Your task to perform on an android device: toggle wifi Image 0: 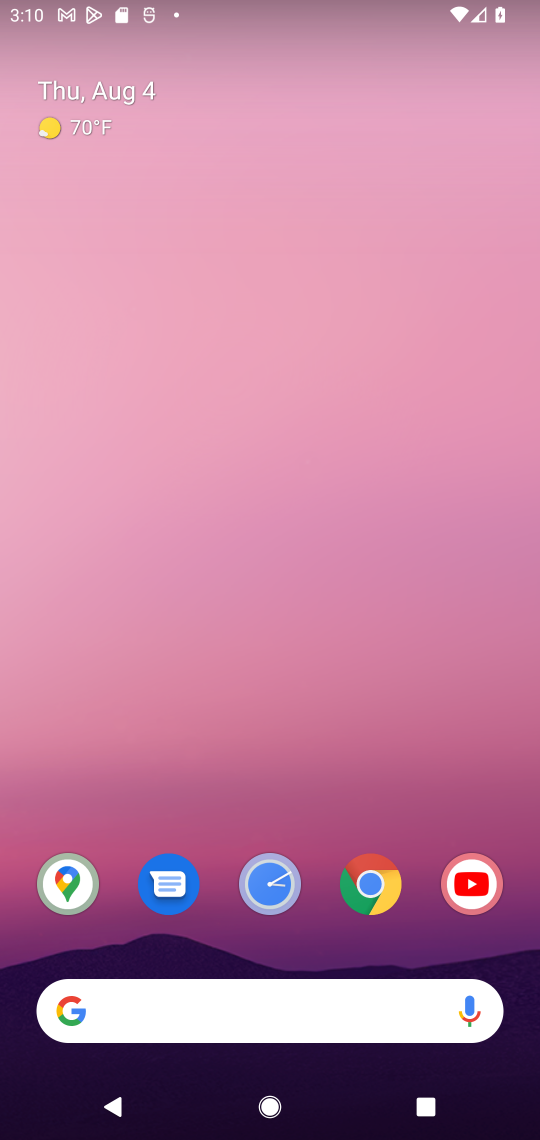
Step 0: drag from (239, 945) to (447, 10)
Your task to perform on an android device: toggle wifi Image 1: 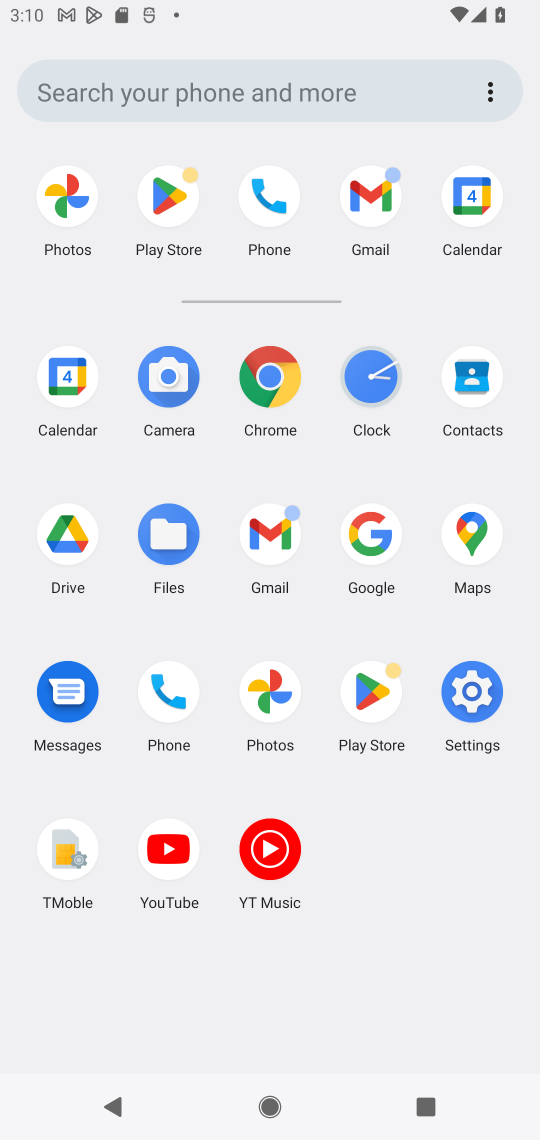
Step 1: click (500, 732)
Your task to perform on an android device: toggle wifi Image 2: 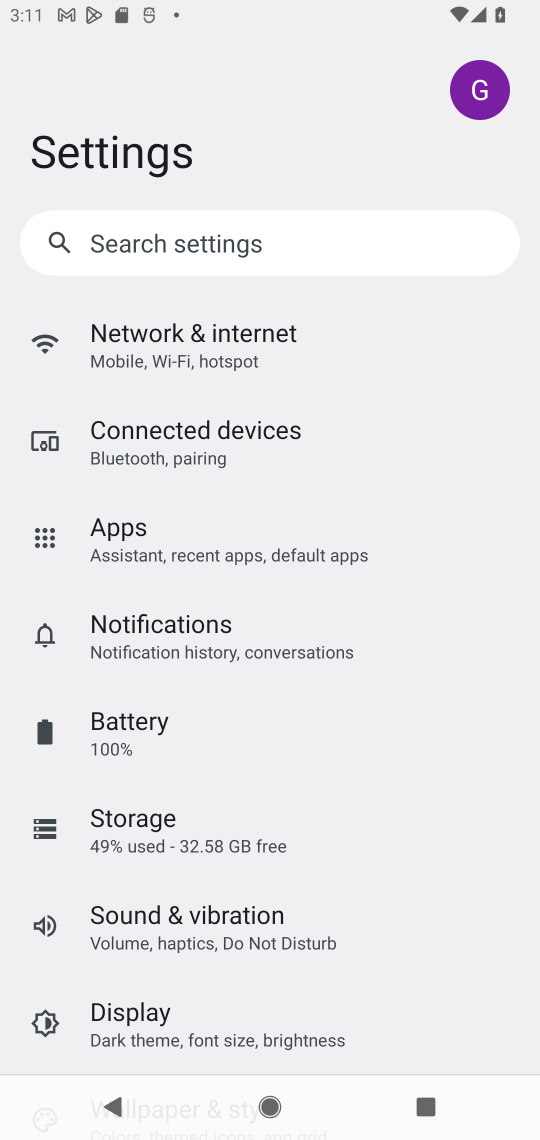
Step 2: click (211, 374)
Your task to perform on an android device: toggle wifi Image 3: 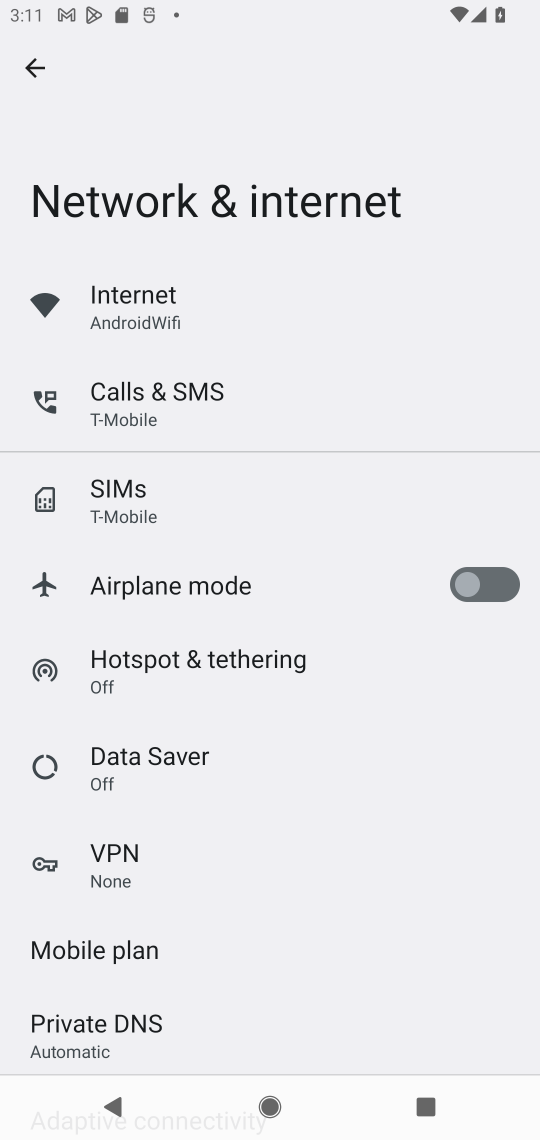
Step 3: click (197, 335)
Your task to perform on an android device: toggle wifi Image 4: 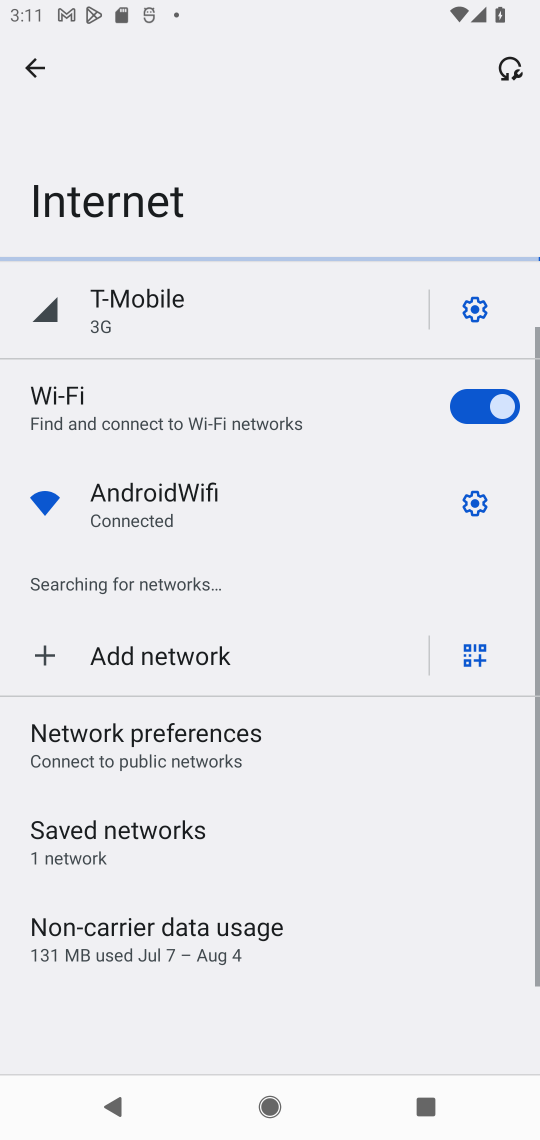
Step 4: task complete